Your task to perform on an android device: Open the stopwatch Image 0: 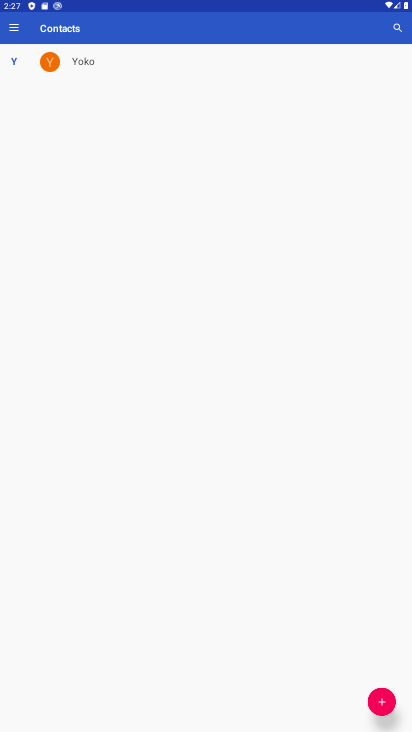
Step 0: press home button
Your task to perform on an android device: Open the stopwatch Image 1: 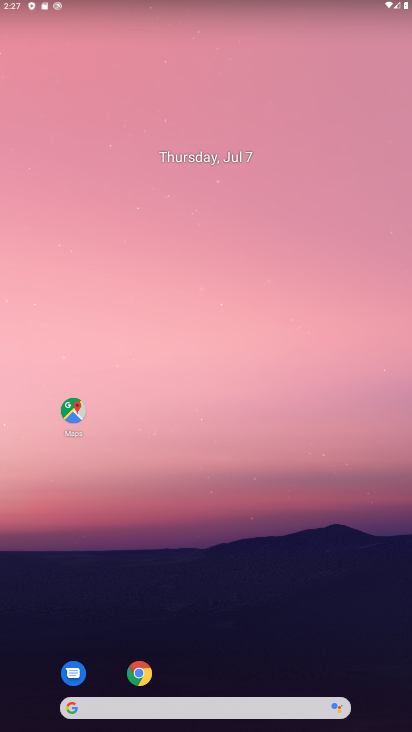
Step 1: drag from (263, 631) to (207, 137)
Your task to perform on an android device: Open the stopwatch Image 2: 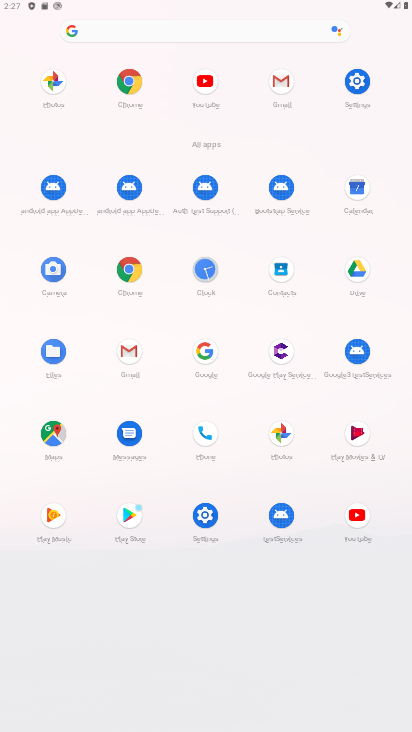
Step 2: click (211, 274)
Your task to perform on an android device: Open the stopwatch Image 3: 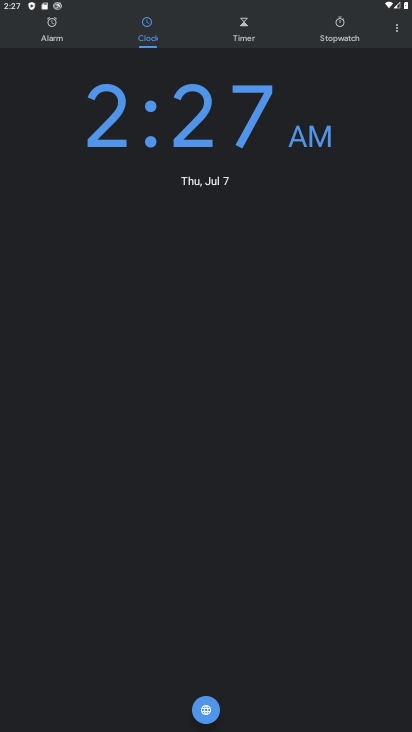
Step 3: click (320, 22)
Your task to perform on an android device: Open the stopwatch Image 4: 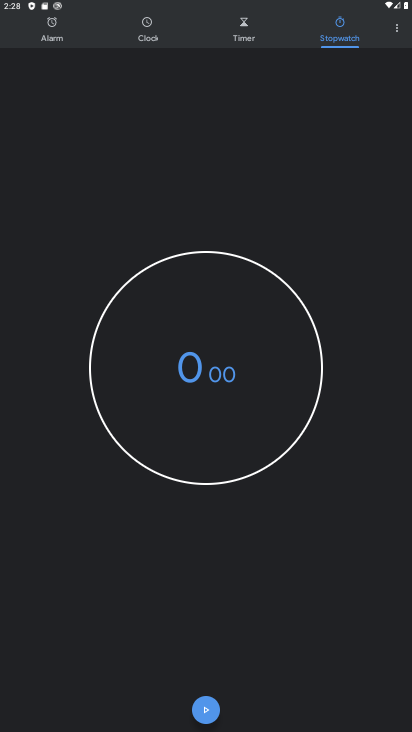
Step 4: click (209, 710)
Your task to perform on an android device: Open the stopwatch Image 5: 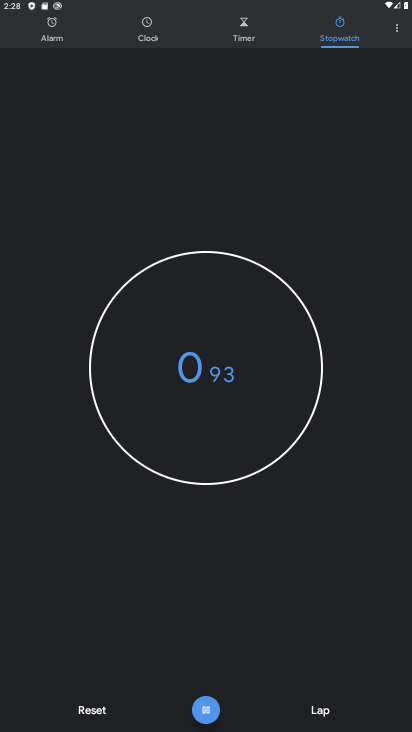
Step 5: click (209, 710)
Your task to perform on an android device: Open the stopwatch Image 6: 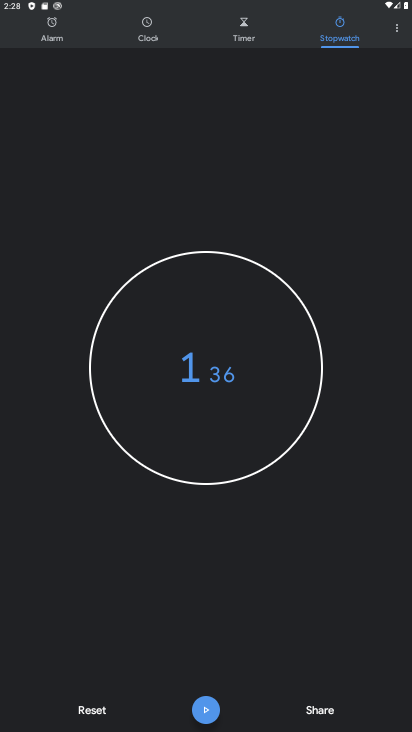
Step 6: task complete